Your task to perform on an android device: change alarm snooze length Image 0: 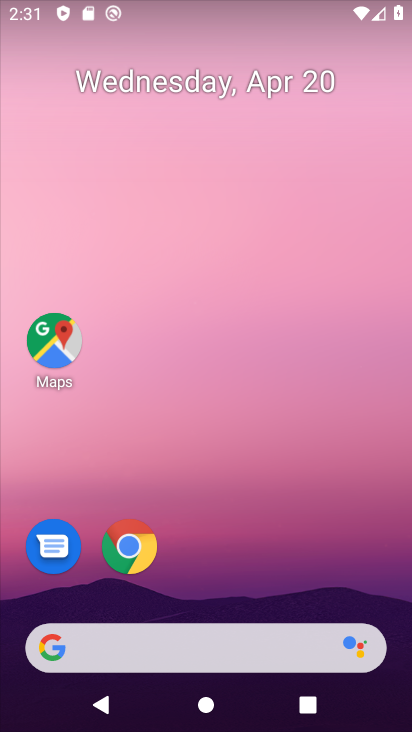
Step 0: drag from (289, 523) to (326, 91)
Your task to perform on an android device: change alarm snooze length Image 1: 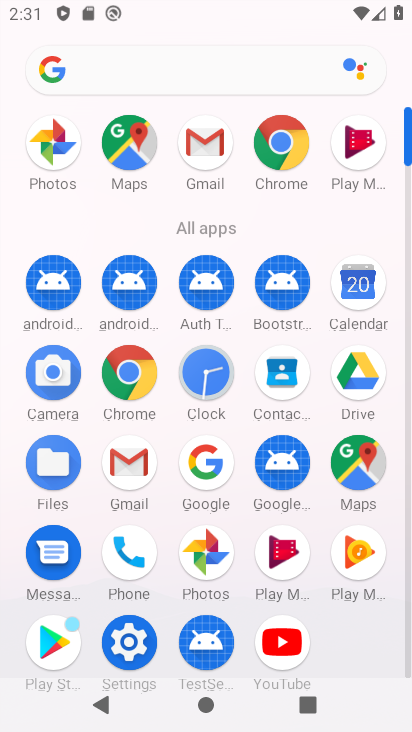
Step 1: click (133, 638)
Your task to perform on an android device: change alarm snooze length Image 2: 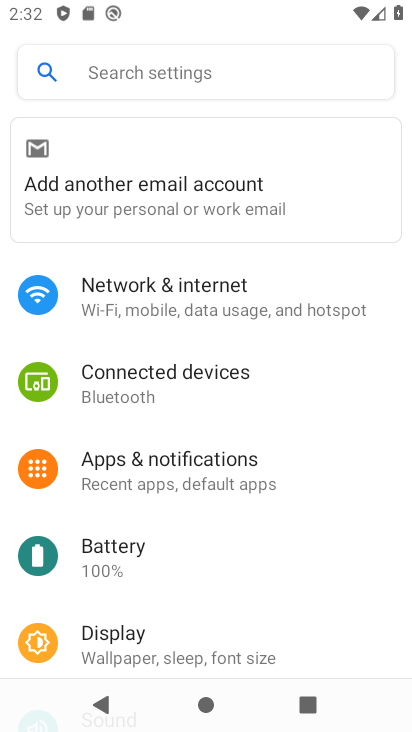
Step 2: press home button
Your task to perform on an android device: change alarm snooze length Image 3: 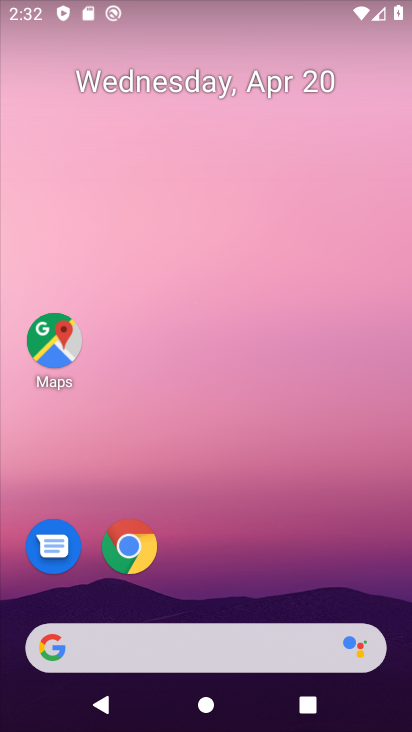
Step 3: drag from (225, 544) to (250, 139)
Your task to perform on an android device: change alarm snooze length Image 4: 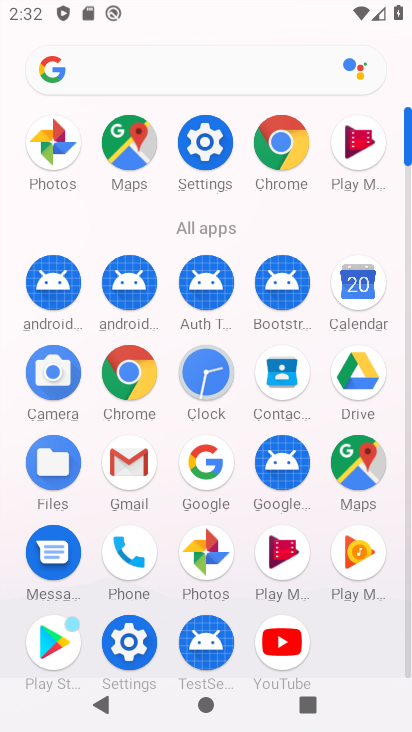
Step 4: click (202, 370)
Your task to perform on an android device: change alarm snooze length Image 5: 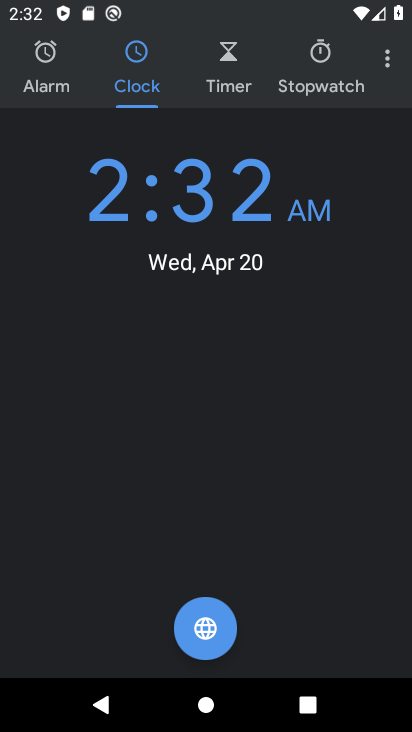
Step 5: click (378, 67)
Your task to perform on an android device: change alarm snooze length Image 6: 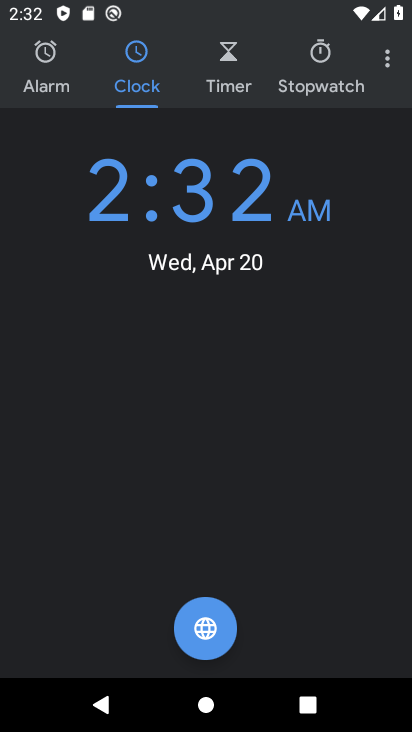
Step 6: click (389, 57)
Your task to perform on an android device: change alarm snooze length Image 7: 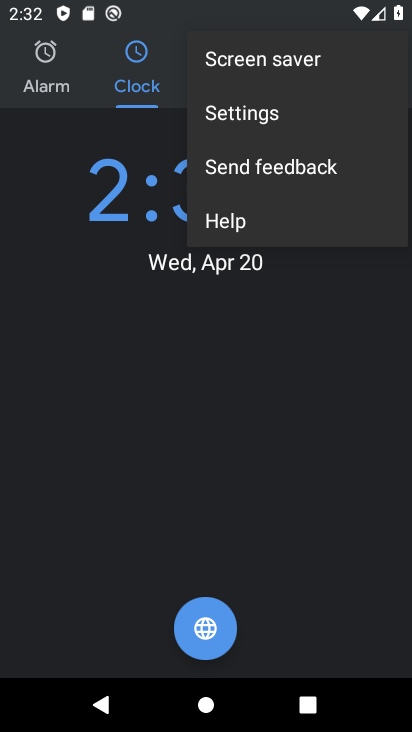
Step 7: click (268, 119)
Your task to perform on an android device: change alarm snooze length Image 8: 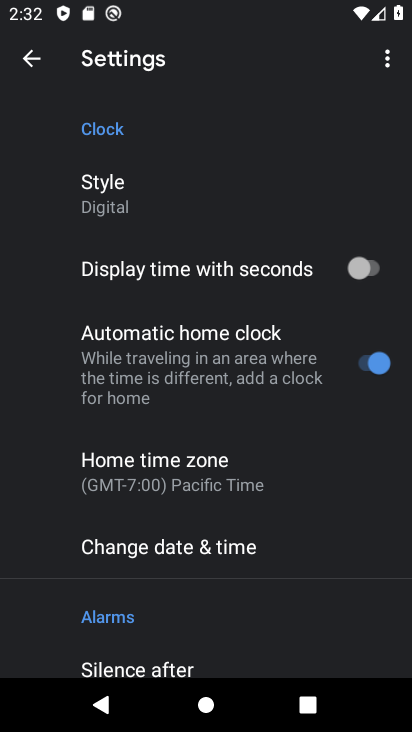
Step 8: drag from (235, 633) to (277, 254)
Your task to perform on an android device: change alarm snooze length Image 9: 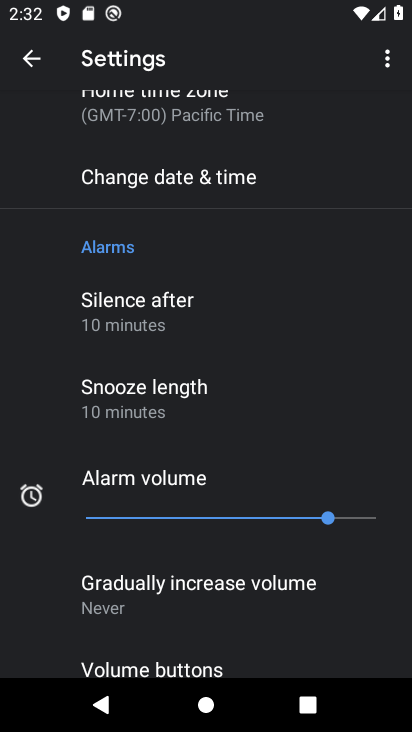
Step 9: click (167, 390)
Your task to perform on an android device: change alarm snooze length Image 10: 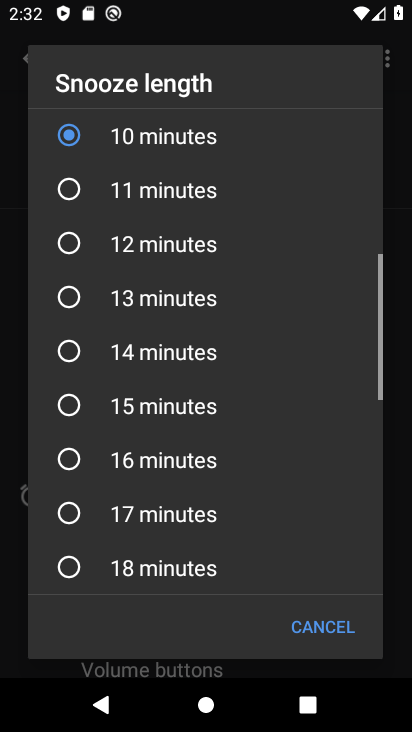
Step 10: click (137, 188)
Your task to perform on an android device: change alarm snooze length Image 11: 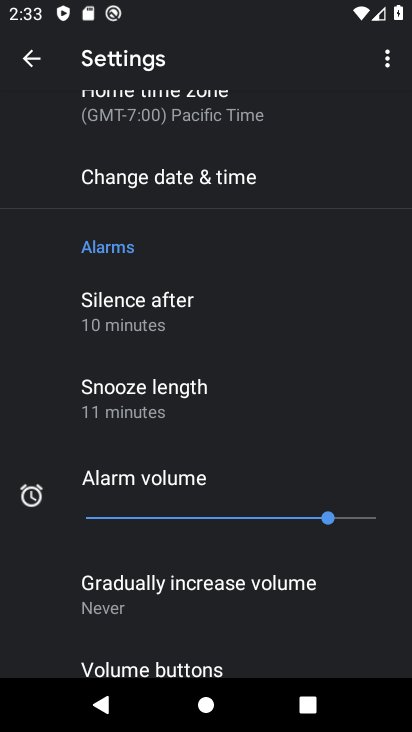
Step 11: task complete